Your task to perform on an android device: Go to accessibility settings Image 0: 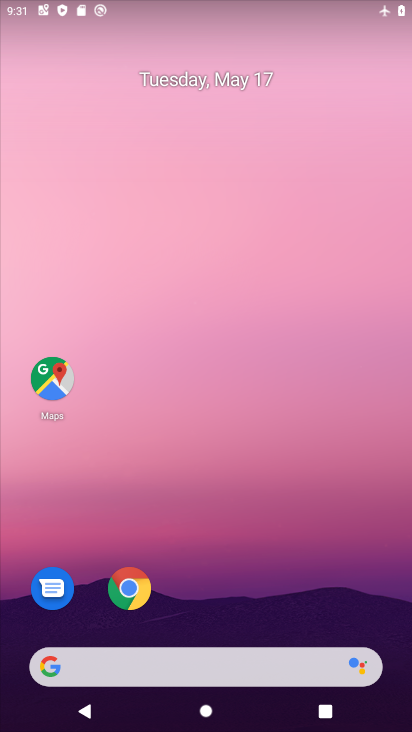
Step 0: drag from (230, 645) to (193, 74)
Your task to perform on an android device: Go to accessibility settings Image 1: 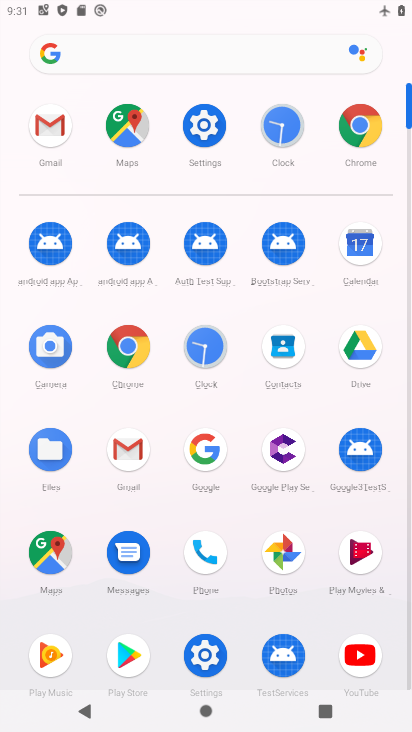
Step 1: click (206, 130)
Your task to perform on an android device: Go to accessibility settings Image 2: 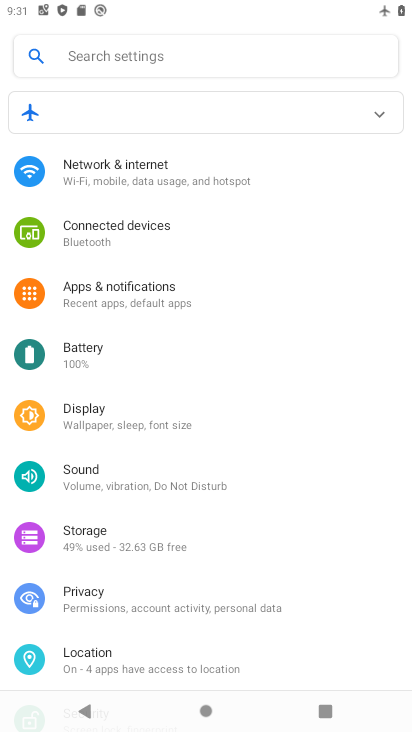
Step 2: drag from (243, 531) to (198, 102)
Your task to perform on an android device: Go to accessibility settings Image 3: 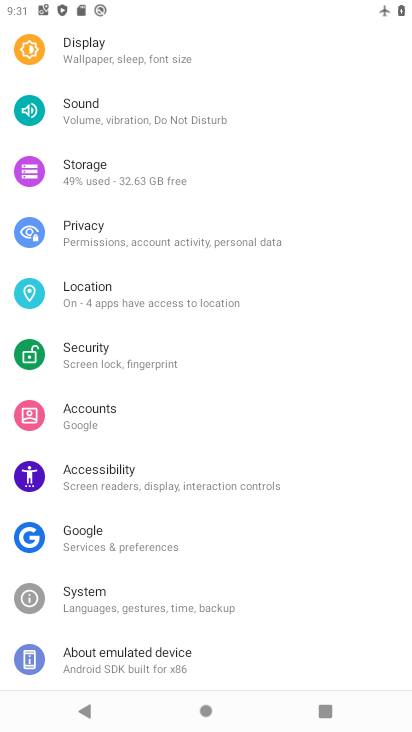
Step 3: click (100, 467)
Your task to perform on an android device: Go to accessibility settings Image 4: 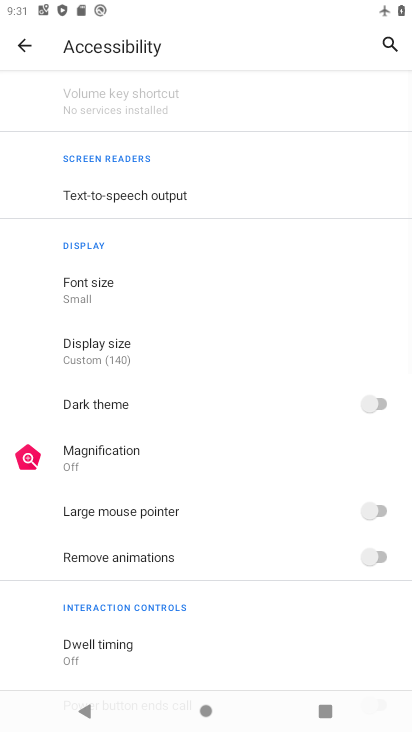
Step 4: task complete